Your task to perform on an android device: open device folders in google photos Image 0: 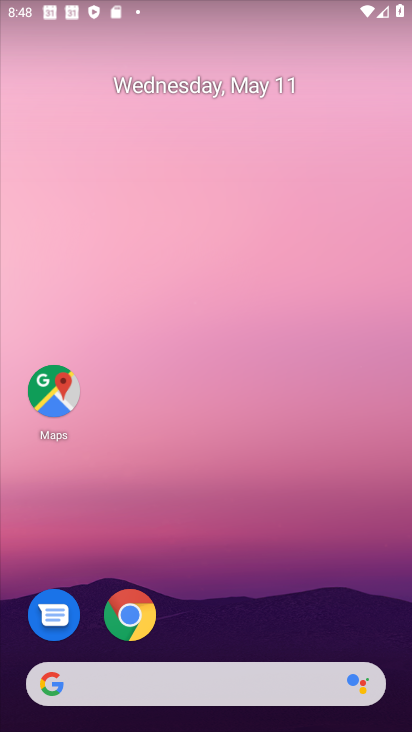
Step 0: drag from (32, 491) to (148, 100)
Your task to perform on an android device: open device folders in google photos Image 1: 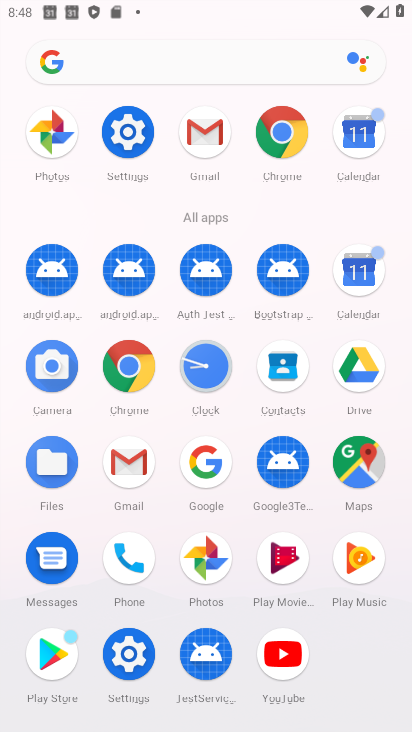
Step 1: click (213, 554)
Your task to perform on an android device: open device folders in google photos Image 2: 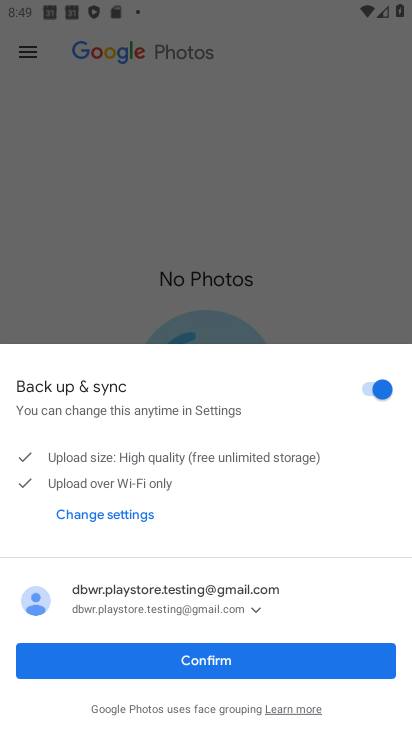
Step 2: click (188, 656)
Your task to perform on an android device: open device folders in google photos Image 3: 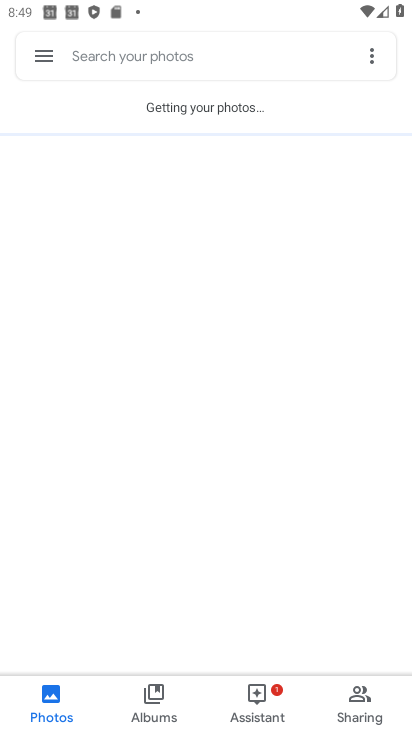
Step 3: click (34, 56)
Your task to perform on an android device: open device folders in google photos Image 4: 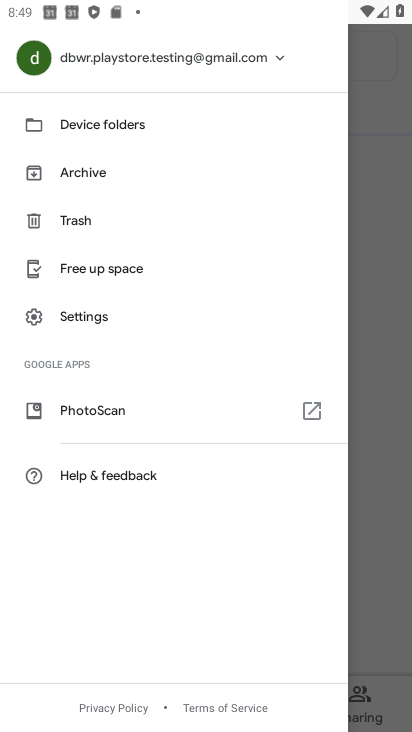
Step 4: click (45, 128)
Your task to perform on an android device: open device folders in google photos Image 5: 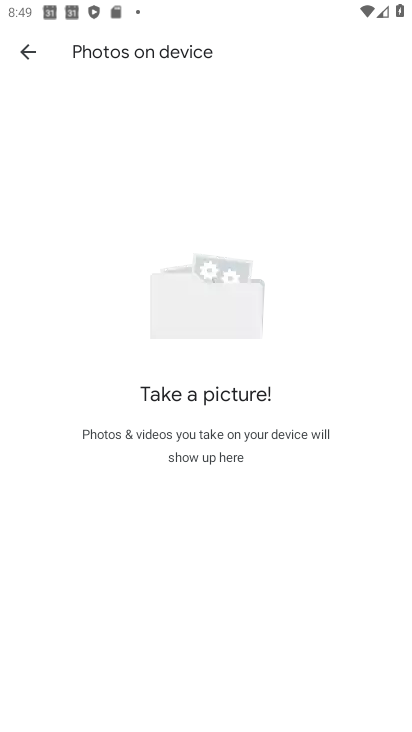
Step 5: task complete